Your task to perform on an android device: Open Google Chrome and open the bookmarks view Image 0: 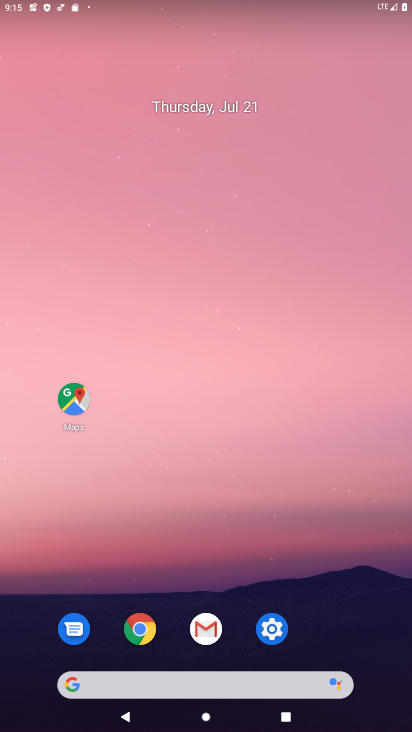
Step 0: click (144, 629)
Your task to perform on an android device: Open Google Chrome and open the bookmarks view Image 1: 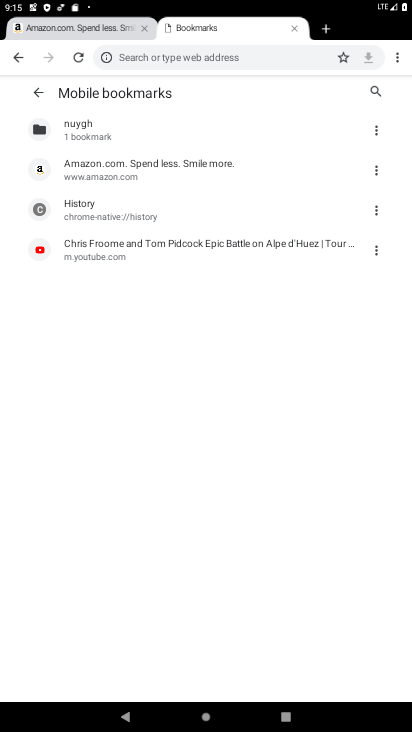
Step 1: click (395, 60)
Your task to perform on an android device: Open Google Chrome and open the bookmarks view Image 2: 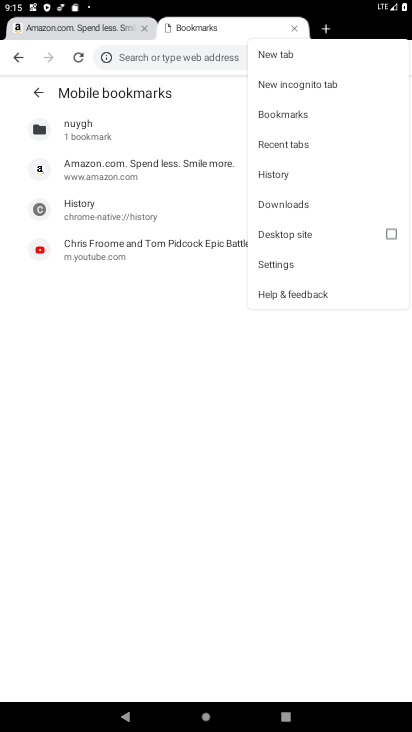
Step 2: click (286, 118)
Your task to perform on an android device: Open Google Chrome and open the bookmarks view Image 3: 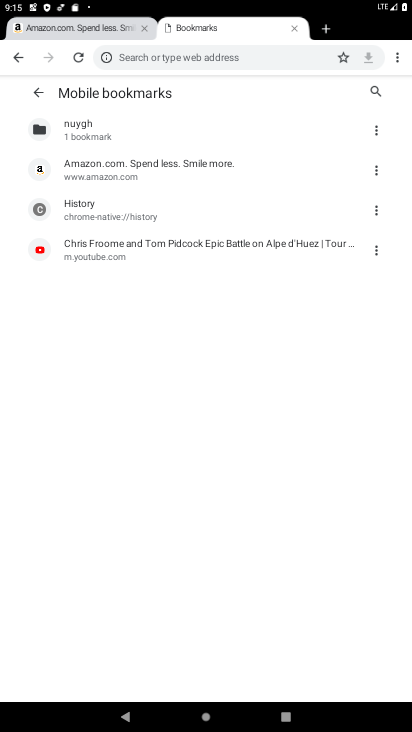
Step 3: click (115, 175)
Your task to perform on an android device: Open Google Chrome and open the bookmarks view Image 4: 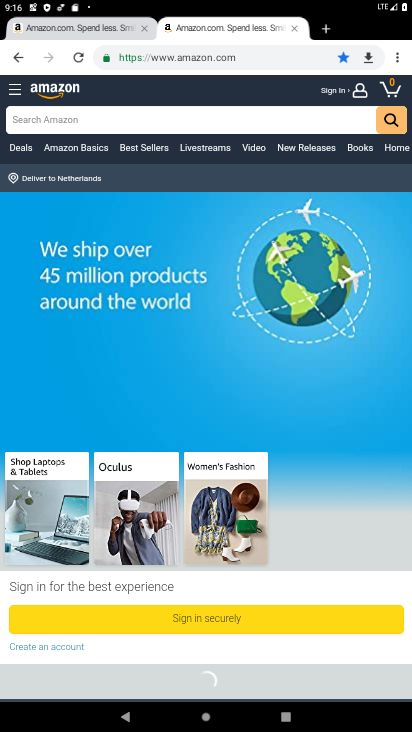
Step 4: task complete